Your task to perform on an android device: turn on the 12-hour format for clock Image 0: 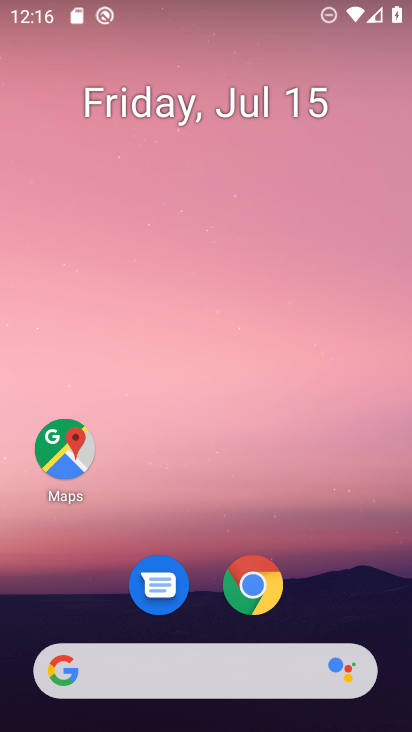
Step 0: drag from (234, 517) to (219, 26)
Your task to perform on an android device: turn on the 12-hour format for clock Image 1: 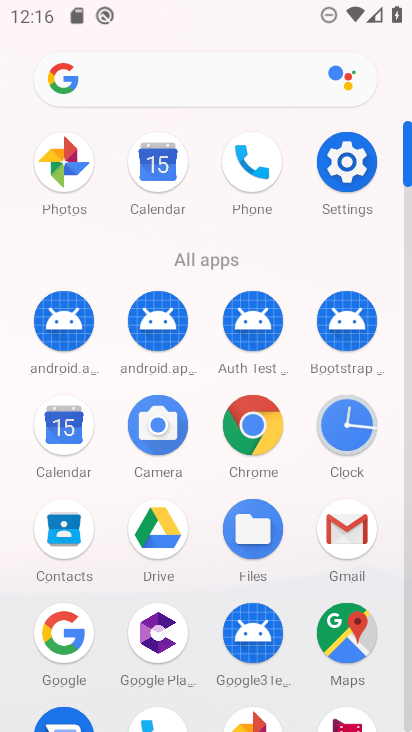
Step 1: click (340, 410)
Your task to perform on an android device: turn on the 12-hour format for clock Image 2: 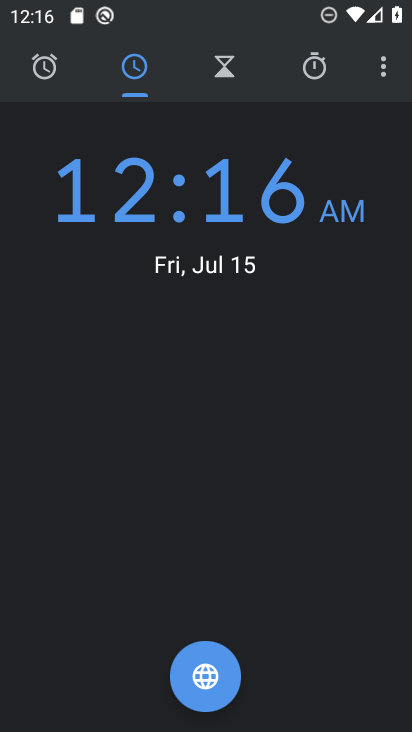
Step 2: click (379, 70)
Your task to perform on an android device: turn on the 12-hour format for clock Image 3: 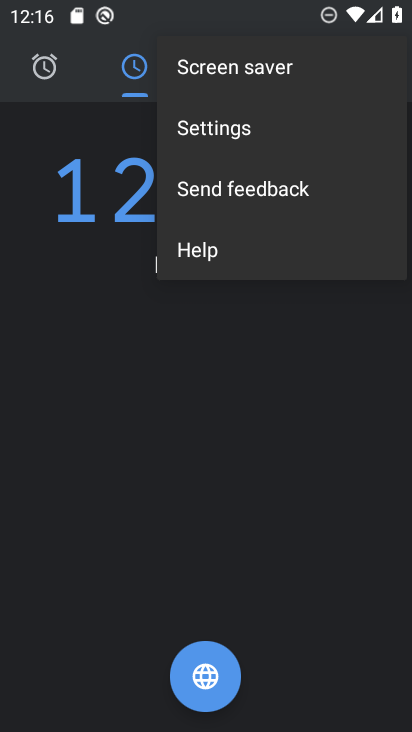
Step 3: click (286, 136)
Your task to perform on an android device: turn on the 12-hour format for clock Image 4: 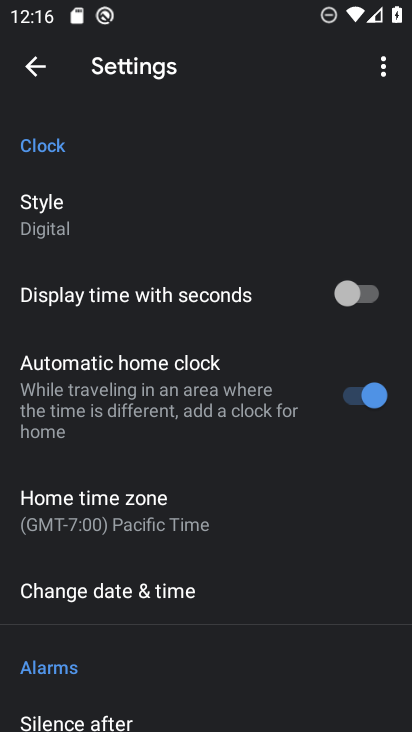
Step 4: click (199, 595)
Your task to perform on an android device: turn on the 12-hour format for clock Image 5: 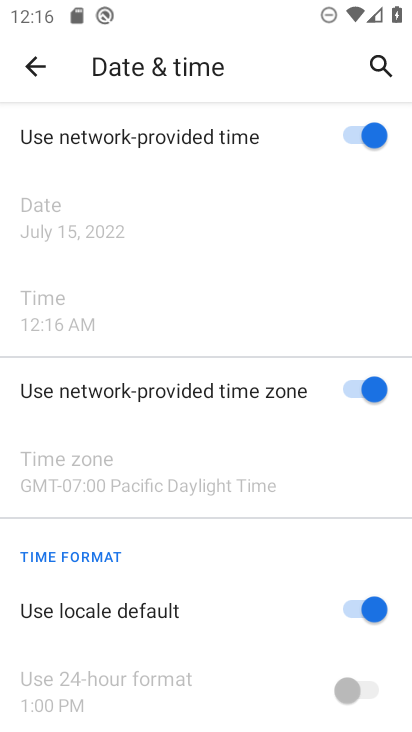
Step 5: task complete